Your task to perform on an android device: Open Google Chrome and click the shortcut for Amazon.com Image 0: 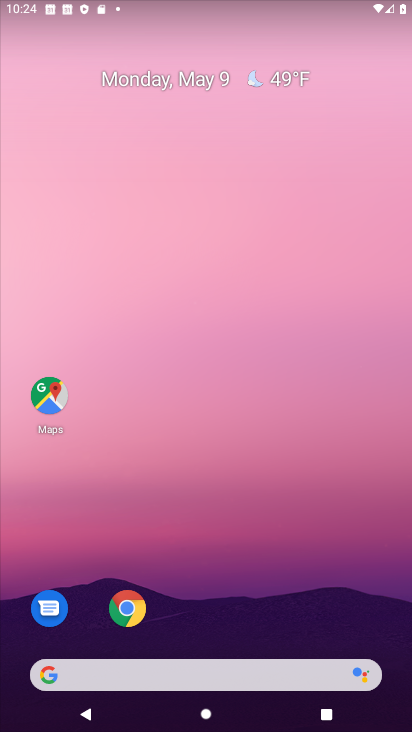
Step 0: click (122, 625)
Your task to perform on an android device: Open Google Chrome and click the shortcut for Amazon.com Image 1: 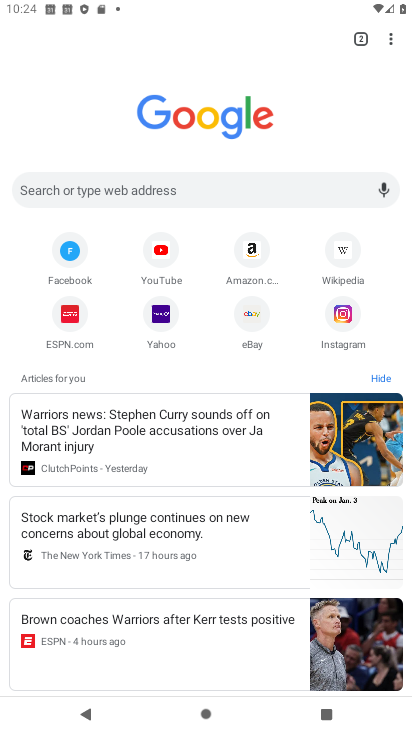
Step 1: click (250, 240)
Your task to perform on an android device: Open Google Chrome and click the shortcut for Amazon.com Image 2: 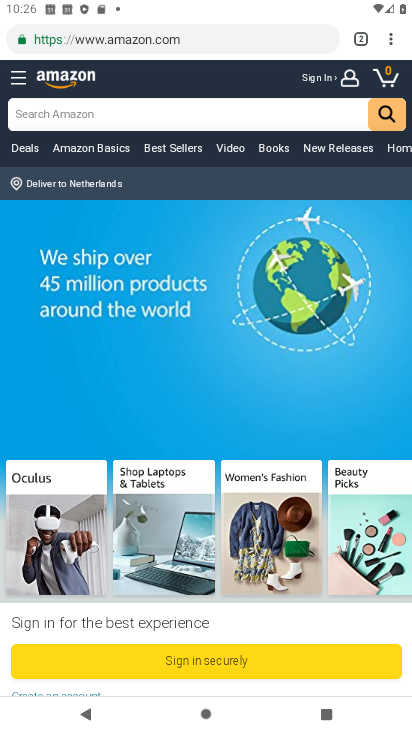
Step 2: task complete